Your task to perform on an android device: check battery use Image 0: 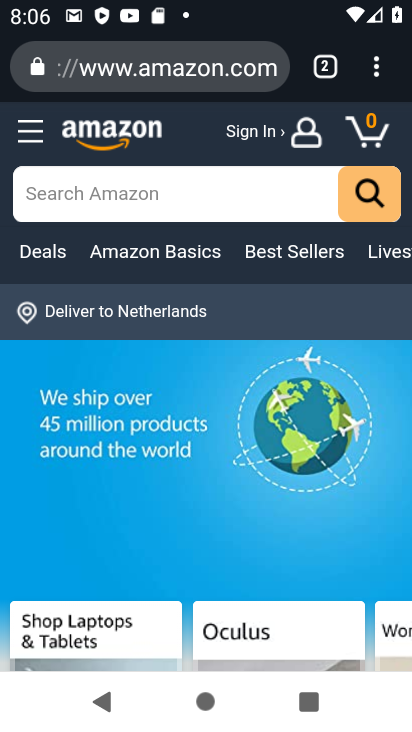
Step 0: press home button
Your task to perform on an android device: check battery use Image 1: 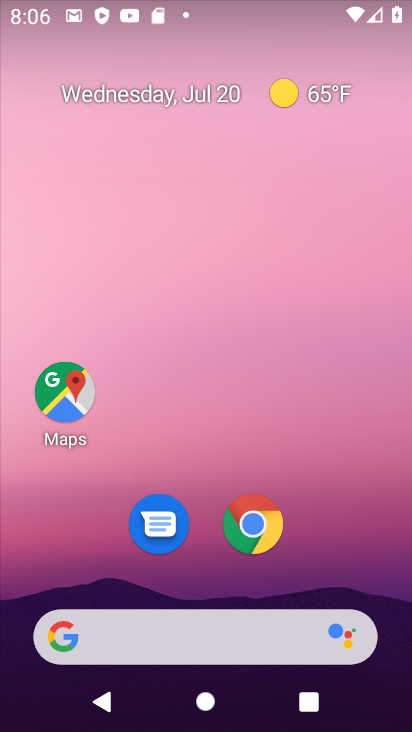
Step 1: drag from (300, 480) to (282, 18)
Your task to perform on an android device: check battery use Image 2: 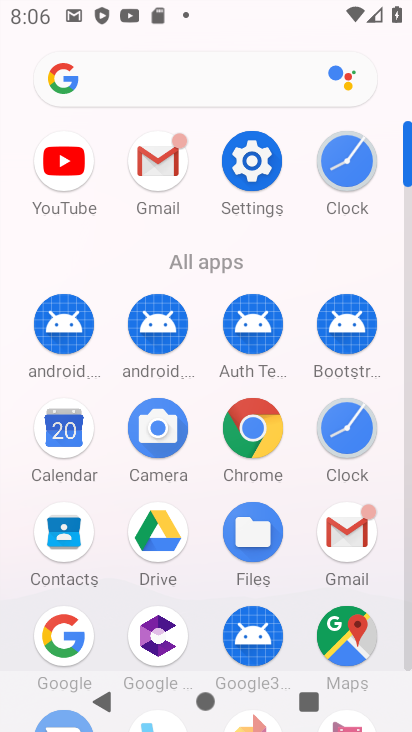
Step 2: click (250, 155)
Your task to perform on an android device: check battery use Image 3: 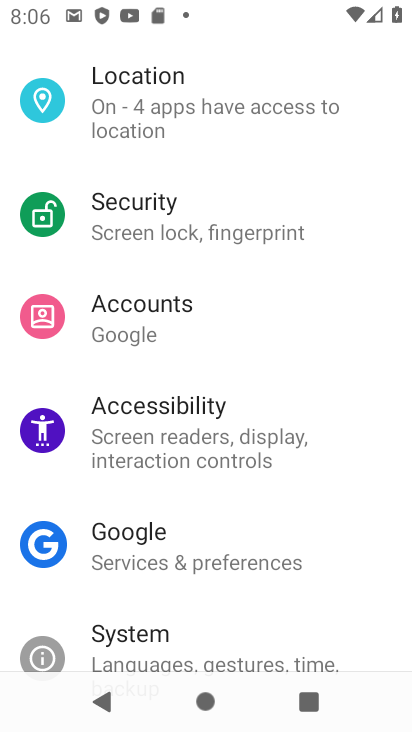
Step 3: drag from (250, 155) to (238, 696)
Your task to perform on an android device: check battery use Image 4: 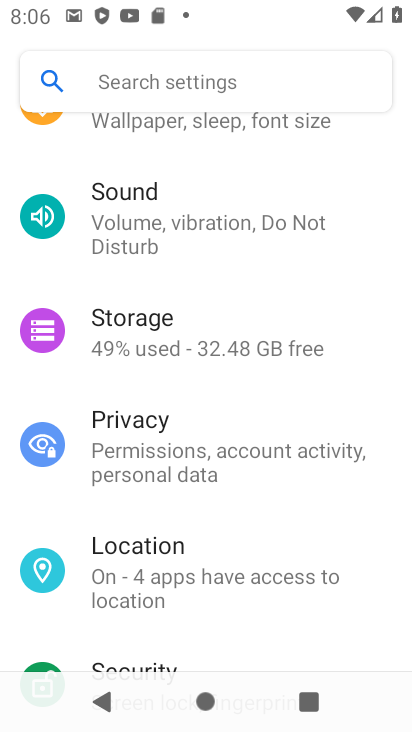
Step 4: drag from (219, 186) to (231, 658)
Your task to perform on an android device: check battery use Image 5: 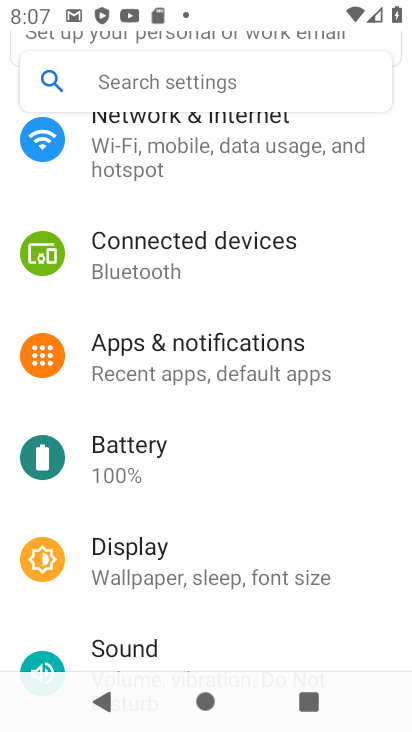
Step 5: click (153, 462)
Your task to perform on an android device: check battery use Image 6: 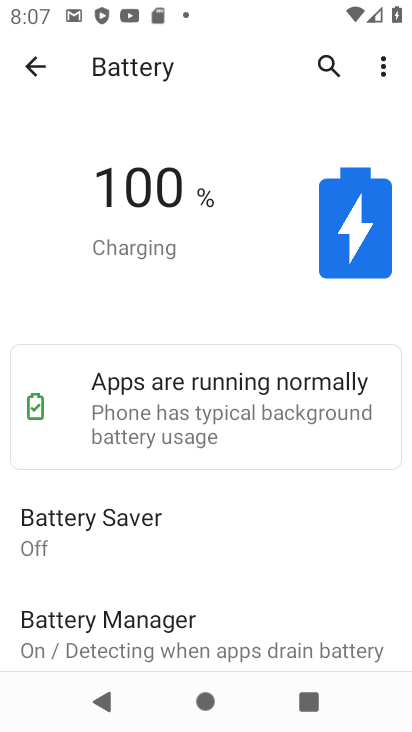
Step 6: click (384, 61)
Your task to perform on an android device: check battery use Image 7: 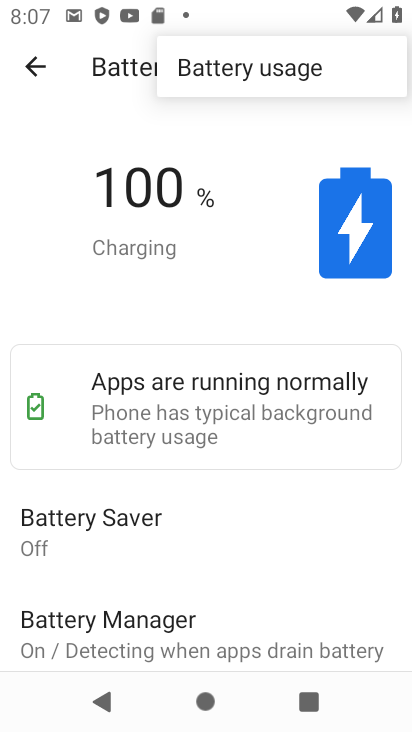
Step 7: click (330, 71)
Your task to perform on an android device: check battery use Image 8: 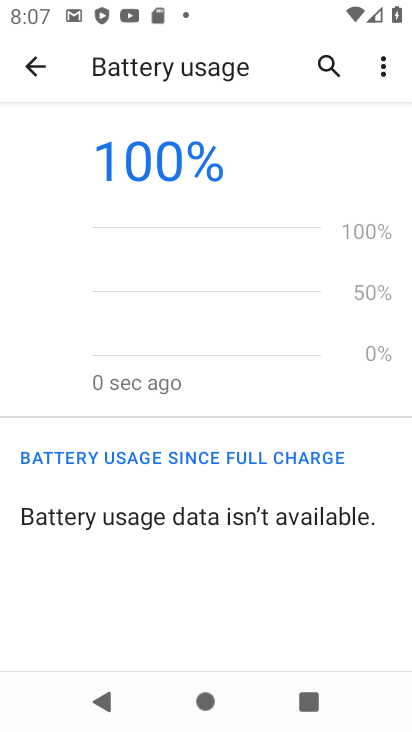
Step 8: task complete